Your task to perform on an android device: refresh tabs in the chrome app Image 0: 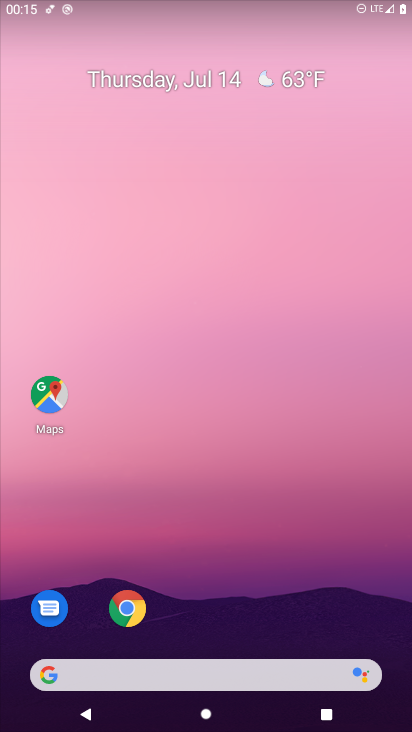
Step 0: press home button
Your task to perform on an android device: refresh tabs in the chrome app Image 1: 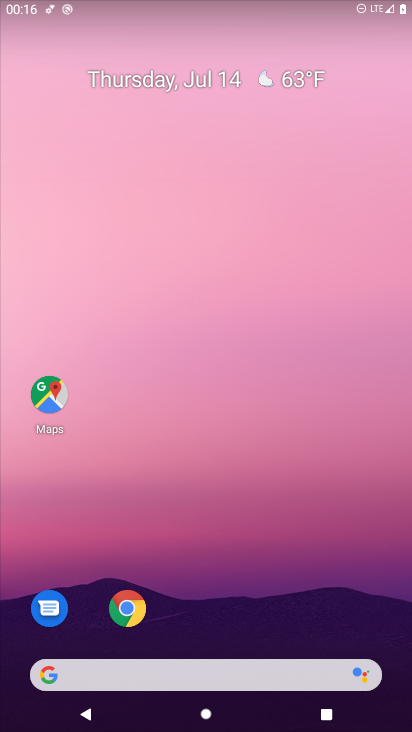
Step 1: drag from (245, 635) to (145, 4)
Your task to perform on an android device: refresh tabs in the chrome app Image 2: 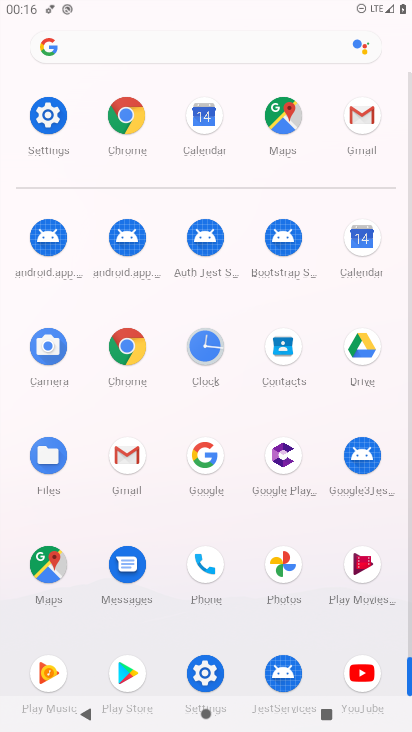
Step 2: click (123, 127)
Your task to perform on an android device: refresh tabs in the chrome app Image 3: 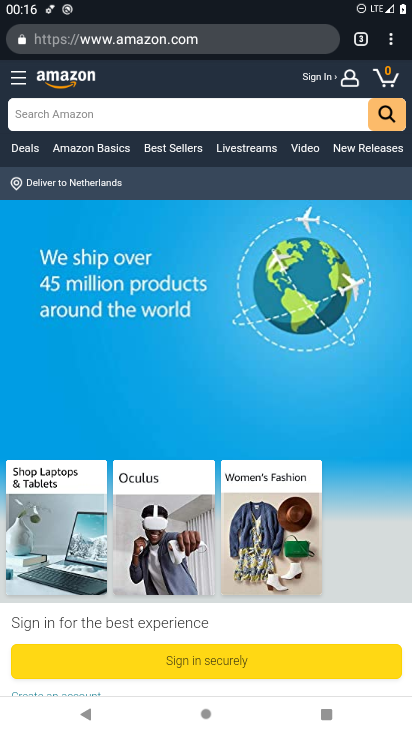
Step 3: click (393, 41)
Your task to perform on an android device: refresh tabs in the chrome app Image 4: 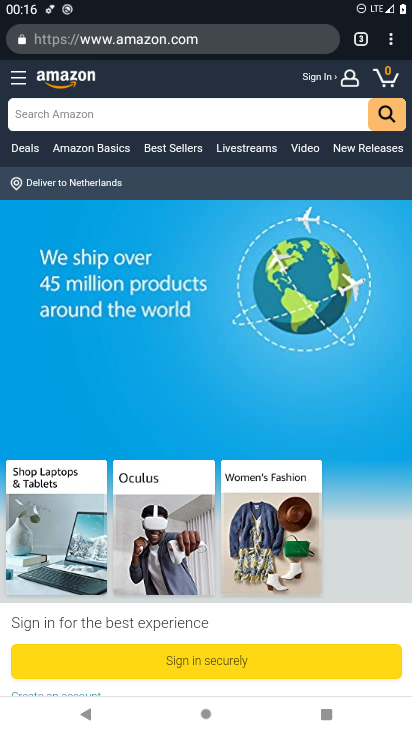
Step 4: task complete